Your task to perform on an android device: Open Maps and search for coffee Image 0: 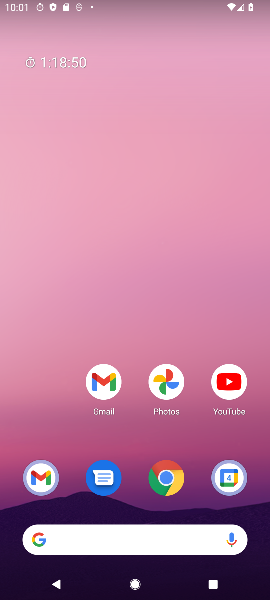
Step 0: drag from (125, 458) to (116, 57)
Your task to perform on an android device: Open Maps and search for coffee Image 1: 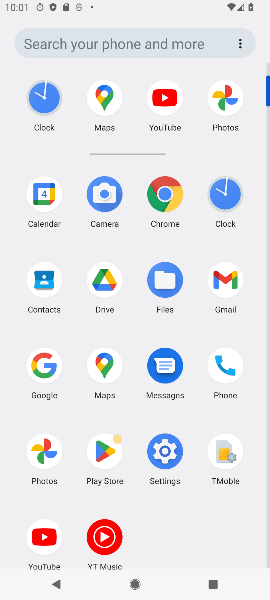
Step 1: click (103, 366)
Your task to perform on an android device: Open Maps and search for coffee Image 2: 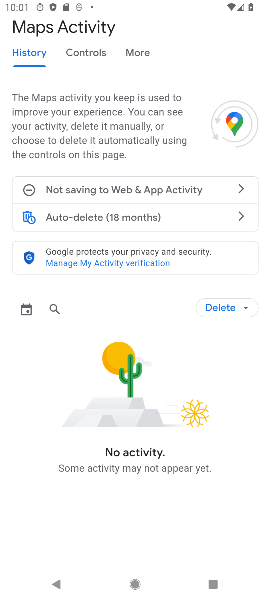
Step 2: press back button
Your task to perform on an android device: Open Maps and search for coffee Image 3: 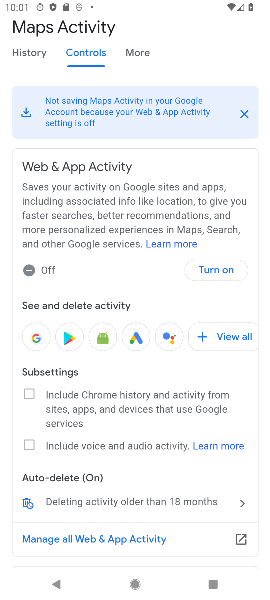
Step 3: press back button
Your task to perform on an android device: Open Maps and search for coffee Image 4: 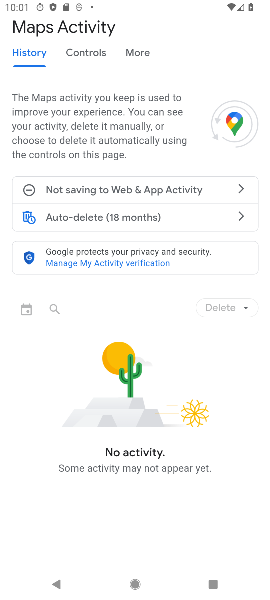
Step 4: press home button
Your task to perform on an android device: Open Maps and search for coffee Image 5: 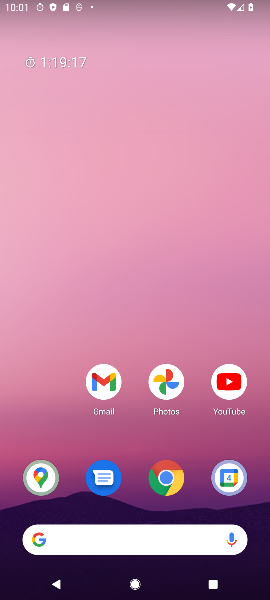
Step 5: click (33, 470)
Your task to perform on an android device: Open Maps and search for coffee Image 6: 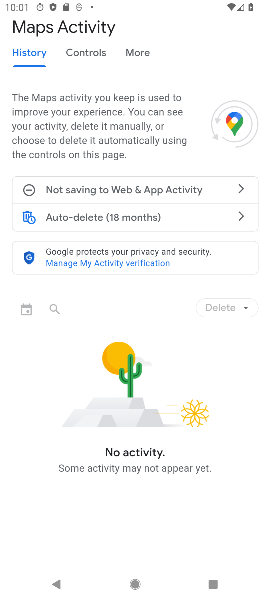
Step 6: press back button
Your task to perform on an android device: Open Maps and search for coffee Image 7: 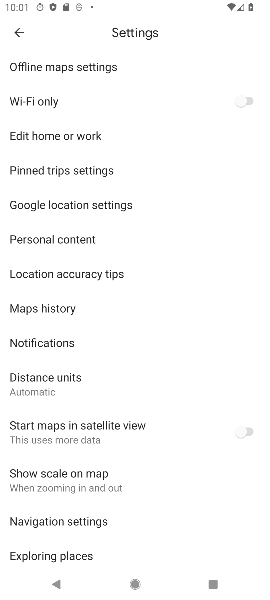
Step 7: click (17, 31)
Your task to perform on an android device: Open Maps and search for coffee Image 8: 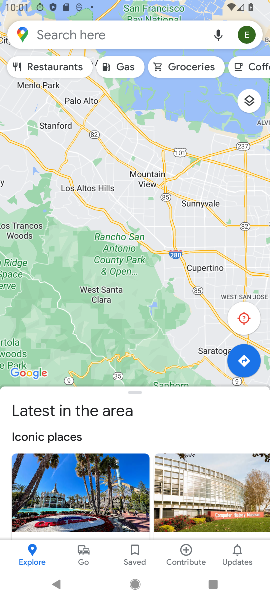
Step 8: click (94, 37)
Your task to perform on an android device: Open Maps and search for coffee Image 9: 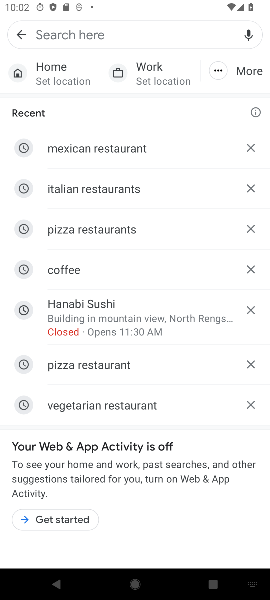
Step 9: type "coffee"
Your task to perform on an android device: Open Maps and search for coffee Image 10: 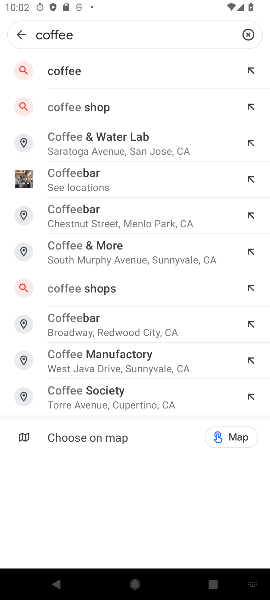
Step 10: click (70, 72)
Your task to perform on an android device: Open Maps and search for coffee Image 11: 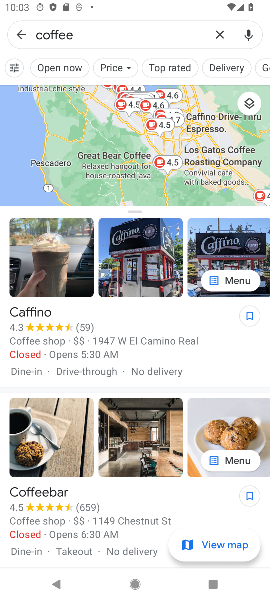
Step 11: task complete